Your task to perform on an android device: Go to eBay Image 0: 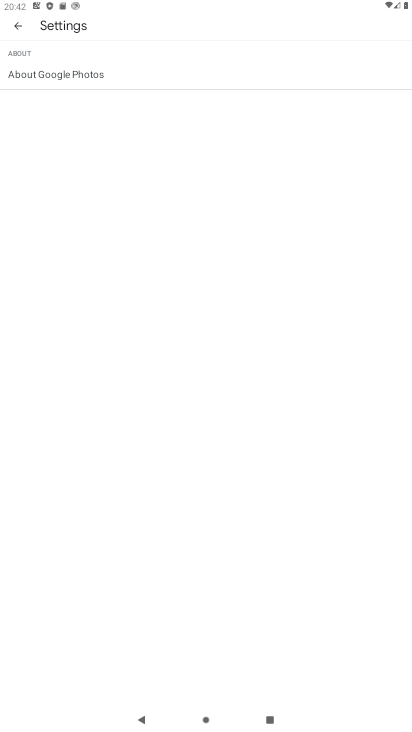
Step 0: press home button
Your task to perform on an android device: Go to eBay Image 1: 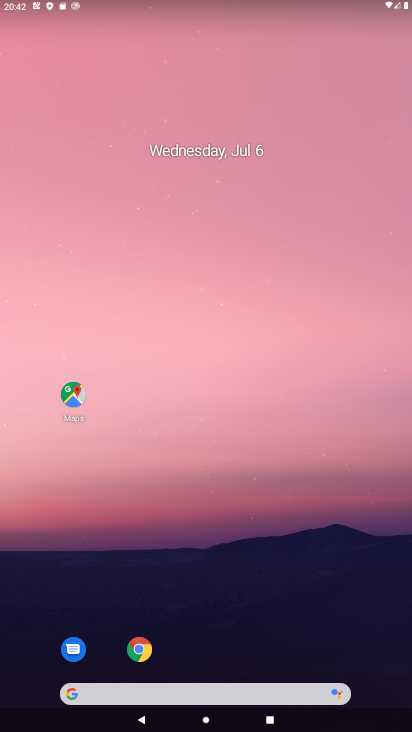
Step 1: drag from (213, 692) to (327, 127)
Your task to perform on an android device: Go to eBay Image 2: 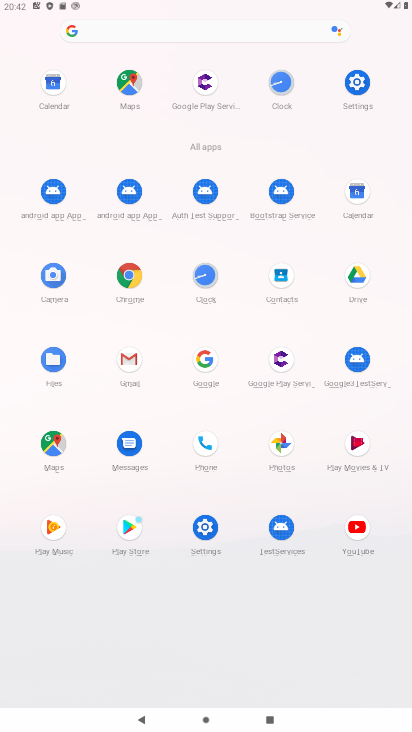
Step 2: click (129, 277)
Your task to perform on an android device: Go to eBay Image 3: 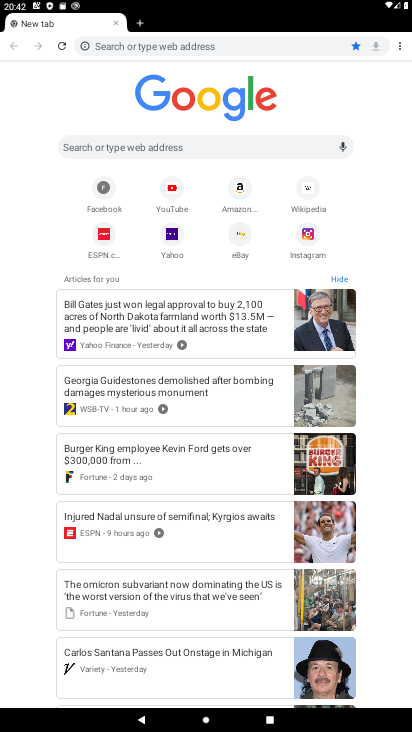
Step 3: click (255, 225)
Your task to perform on an android device: Go to eBay Image 4: 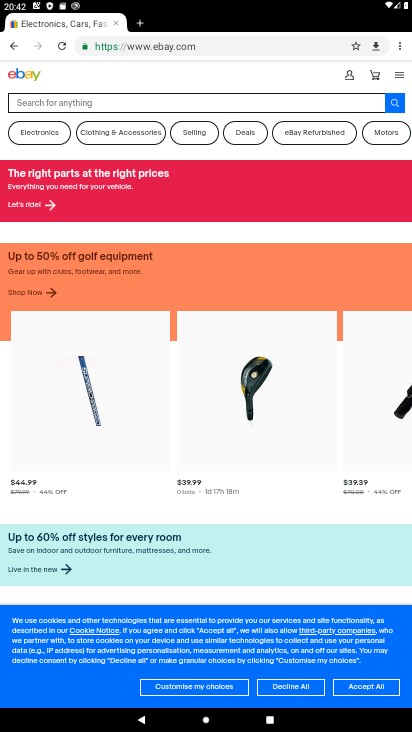
Step 4: click (361, 683)
Your task to perform on an android device: Go to eBay Image 5: 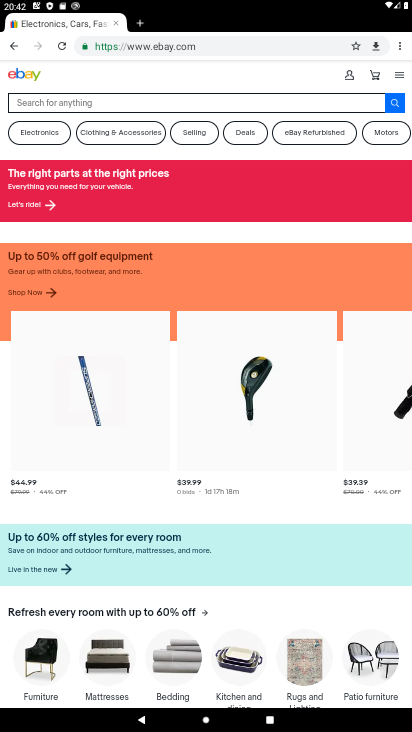
Step 5: task complete